Your task to perform on an android device: add a label to a message in the gmail app Image 0: 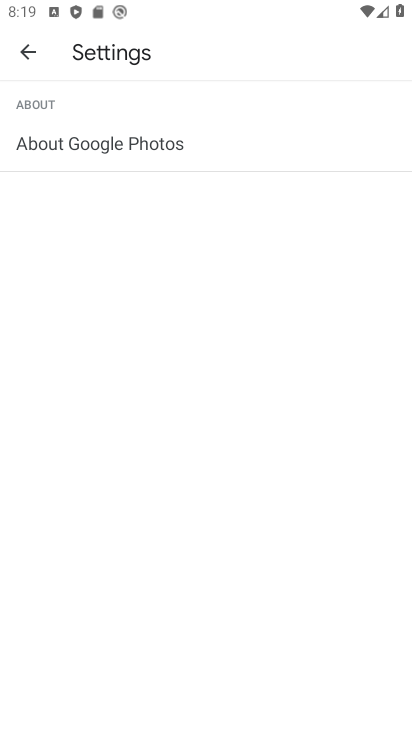
Step 0: press home button
Your task to perform on an android device: add a label to a message in the gmail app Image 1: 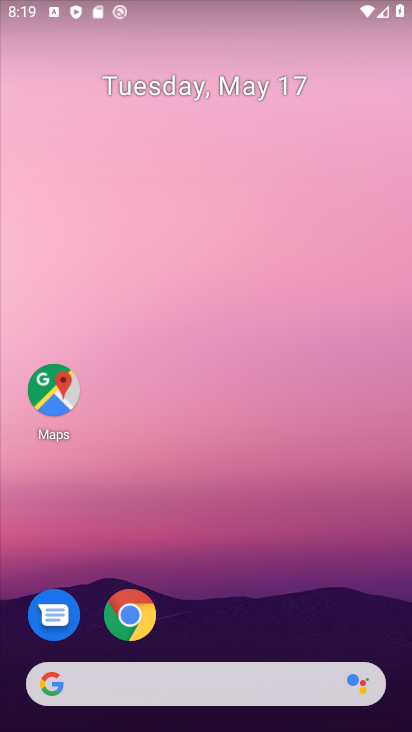
Step 1: drag from (387, 636) to (319, 72)
Your task to perform on an android device: add a label to a message in the gmail app Image 2: 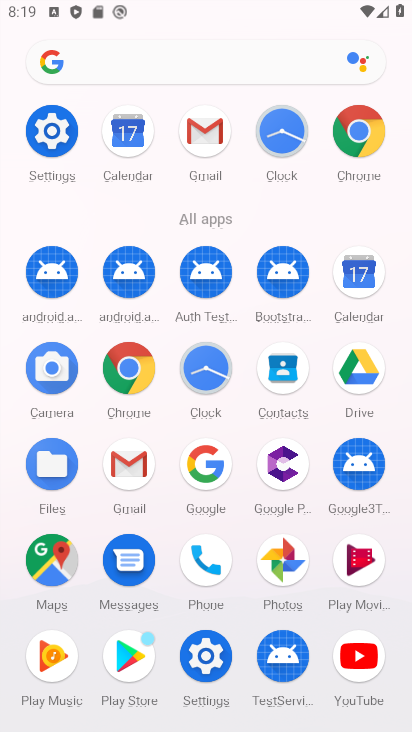
Step 2: click (126, 460)
Your task to perform on an android device: add a label to a message in the gmail app Image 3: 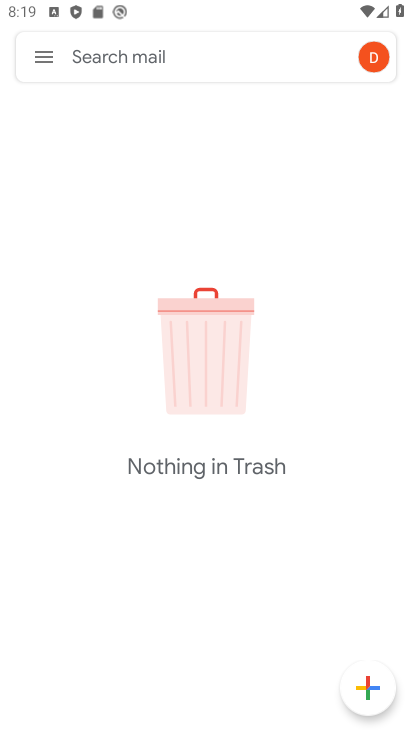
Step 3: click (37, 52)
Your task to perform on an android device: add a label to a message in the gmail app Image 4: 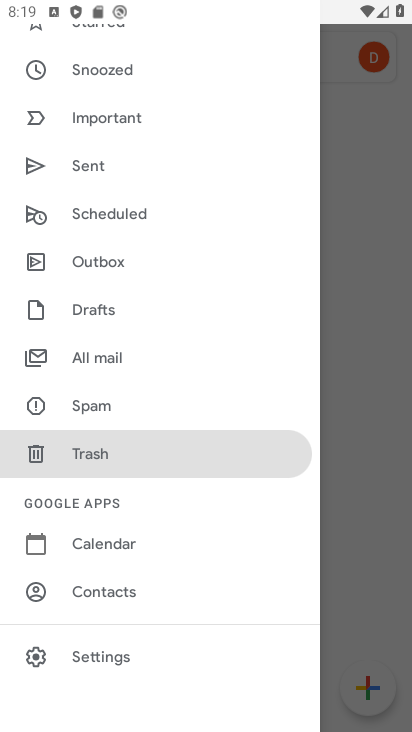
Step 4: click (104, 352)
Your task to perform on an android device: add a label to a message in the gmail app Image 5: 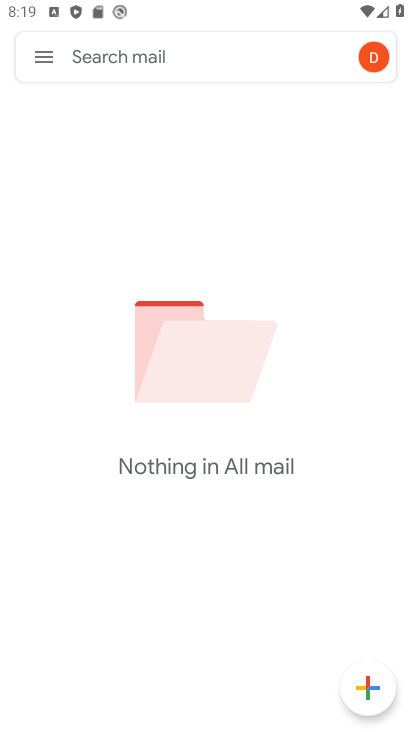
Step 5: task complete